Your task to perform on an android device: change your default location settings in chrome Image 0: 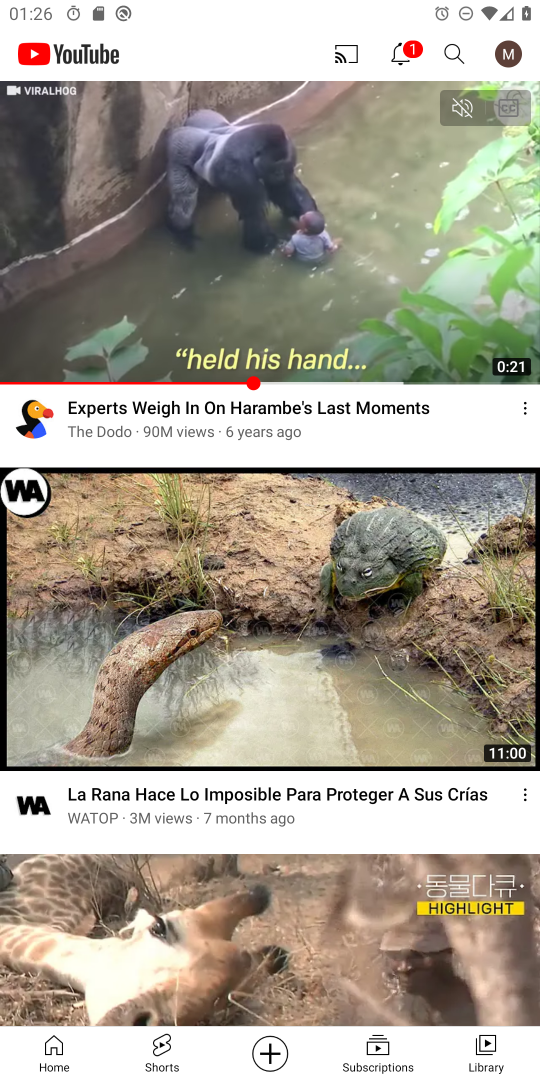
Step 0: press home button
Your task to perform on an android device: change your default location settings in chrome Image 1: 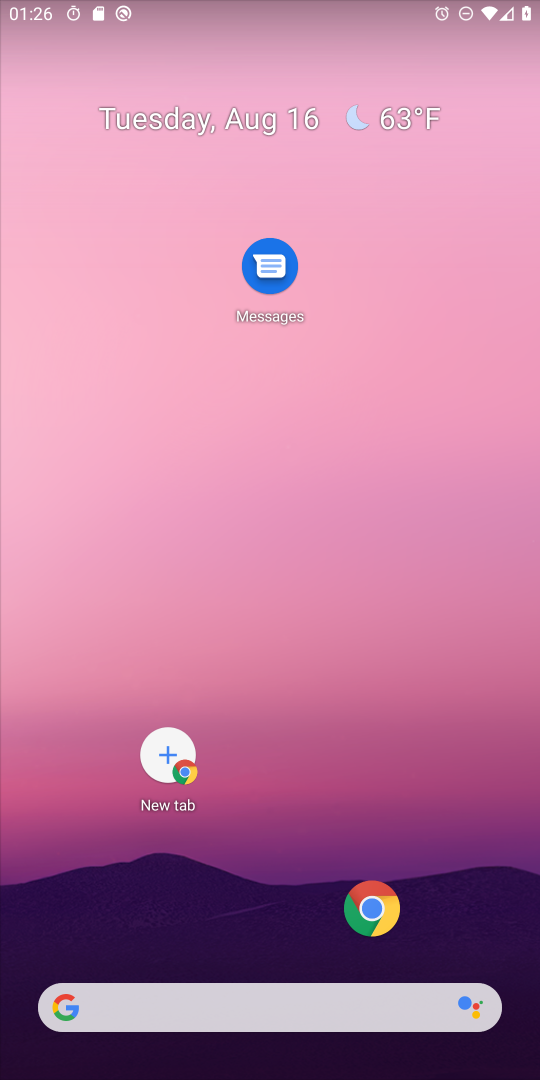
Step 1: click (352, 915)
Your task to perform on an android device: change your default location settings in chrome Image 2: 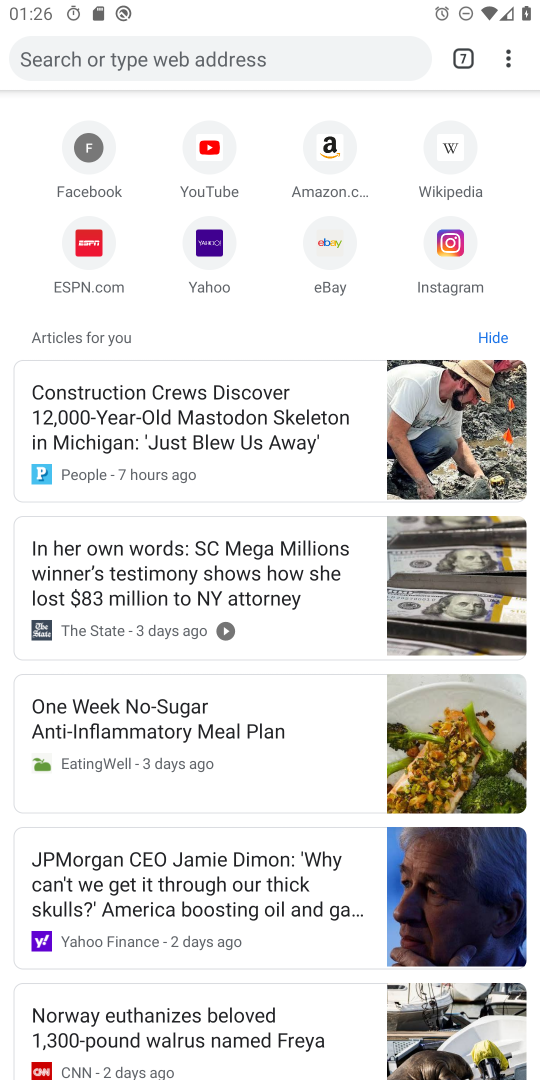
Step 2: click (495, 57)
Your task to perform on an android device: change your default location settings in chrome Image 3: 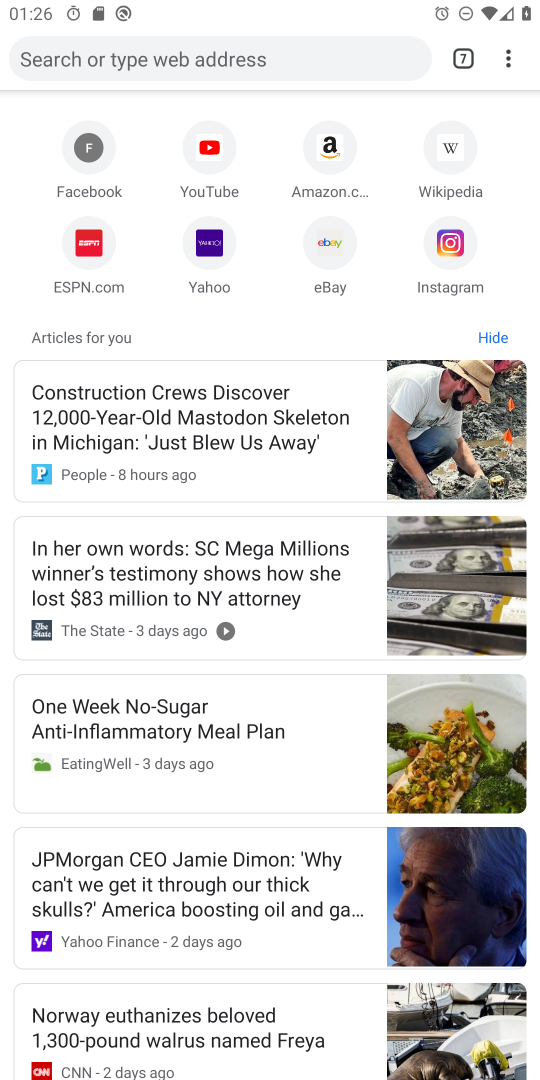
Step 3: click (493, 52)
Your task to perform on an android device: change your default location settings in chrome Image 4: 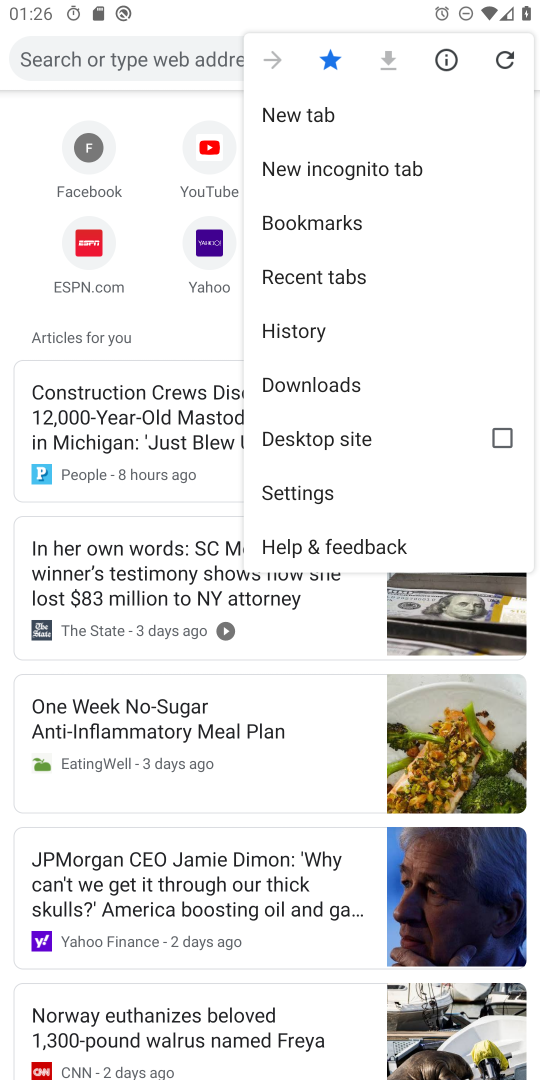
Step 4: click (290, 493)
Your task to perform on an android device: change your default location settings in chrome Image 5: 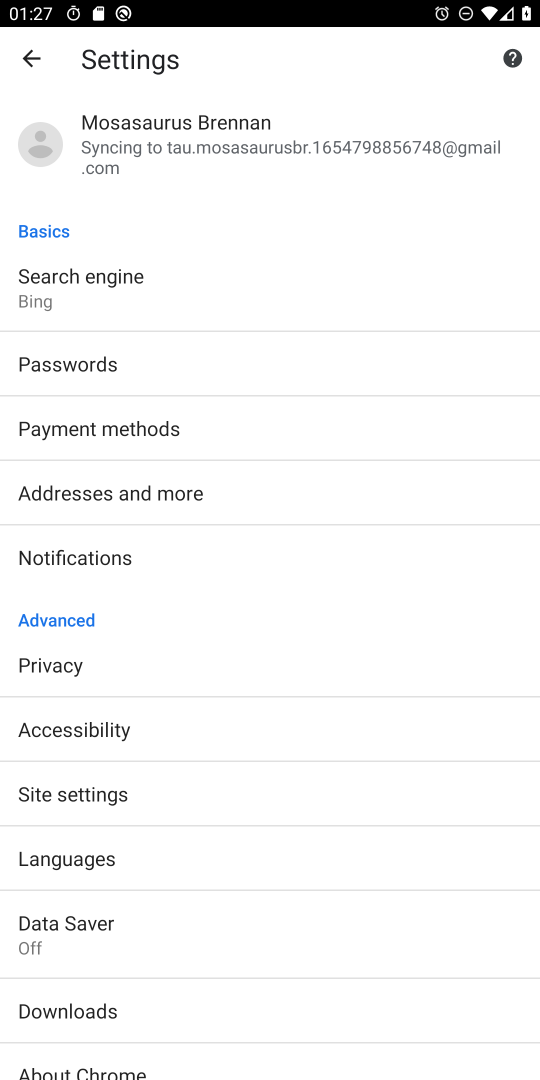
Step 5: click (39, 861)
Your task to perform on an android device: change your default location settings in chrome Image 6: 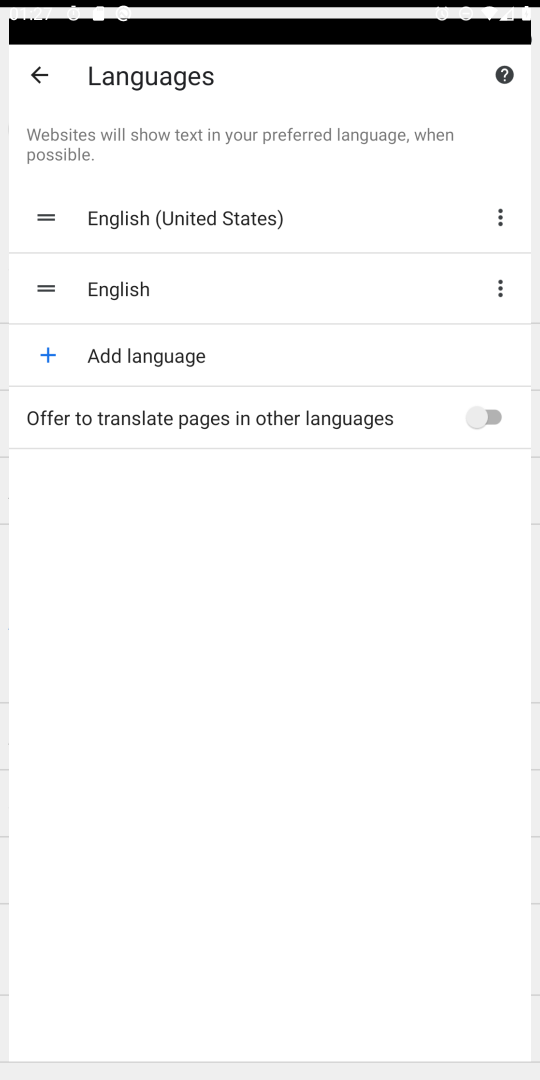
Step 6: click (39, 861)
Your task to perform on an android device: change your default location settings in chrome Image 7: 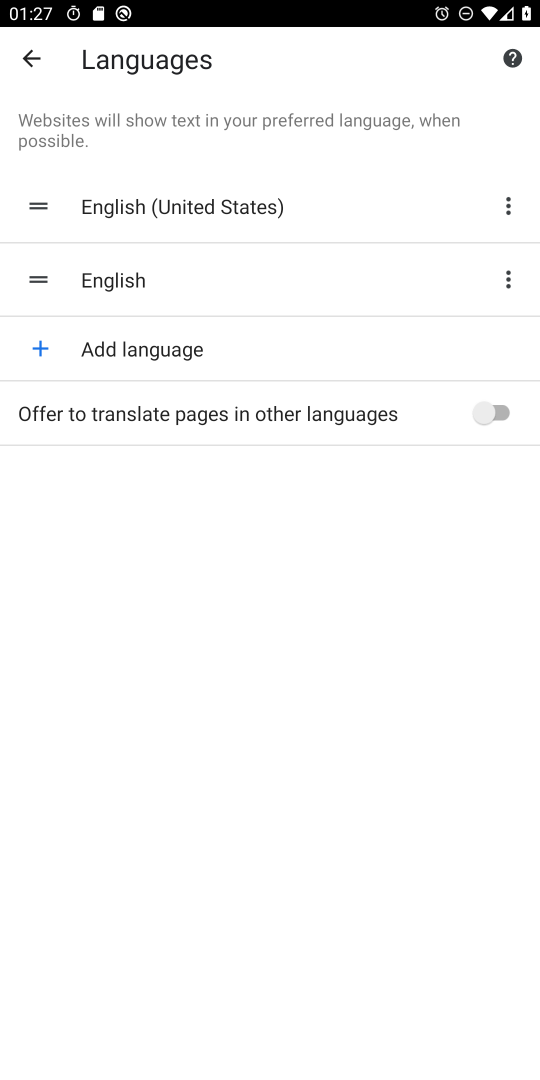
Step 7: click (29, 58)
Your task to perform on an android device: change your default location settings in chrome Image 8: 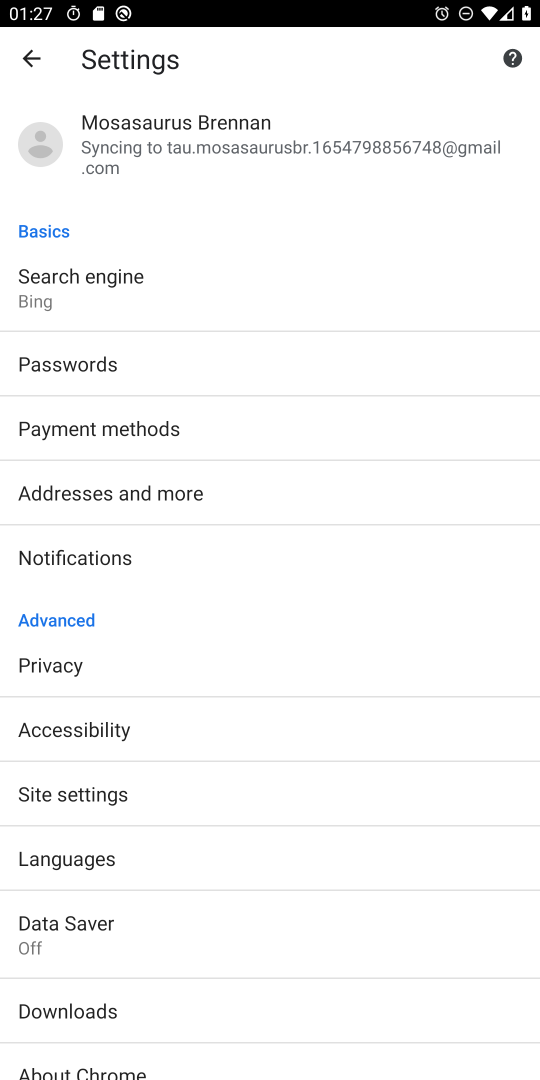
Step 8: click (62, 778)
Your task to perform on an android device: change your default location settings in chrome Image 9: 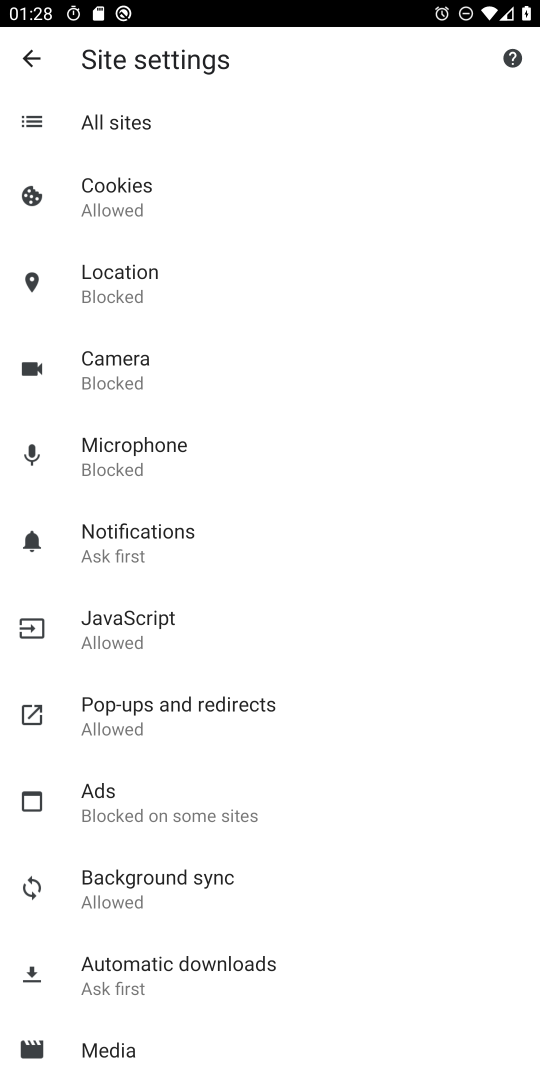
Step 9: click (219, 241)
Your task to perform on an android device: change your default location settings in chrome Image 10: 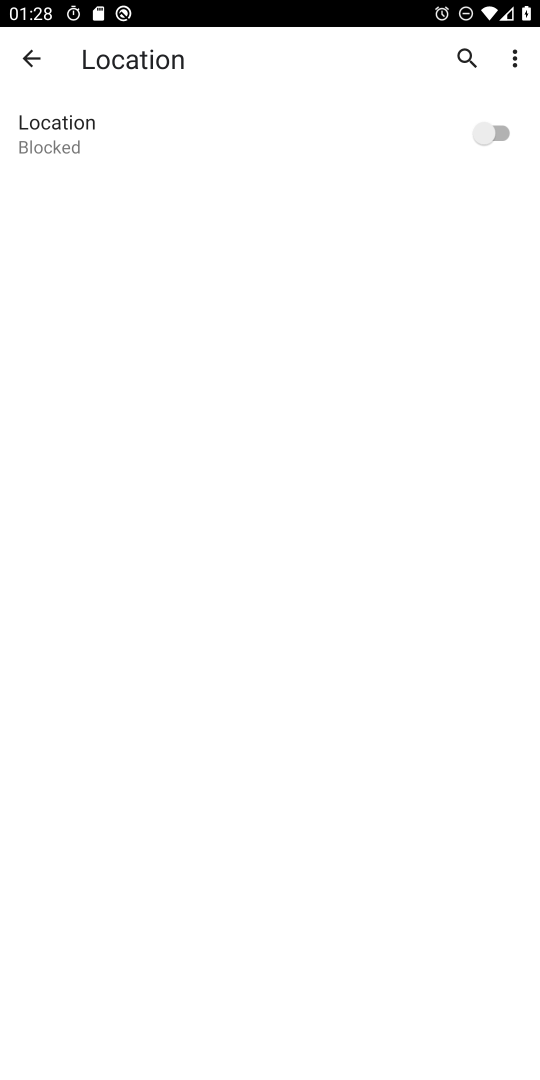
Step 10: click (503, 130)
Your task to perform on an android device: change your default location settings in chrome Image 11: 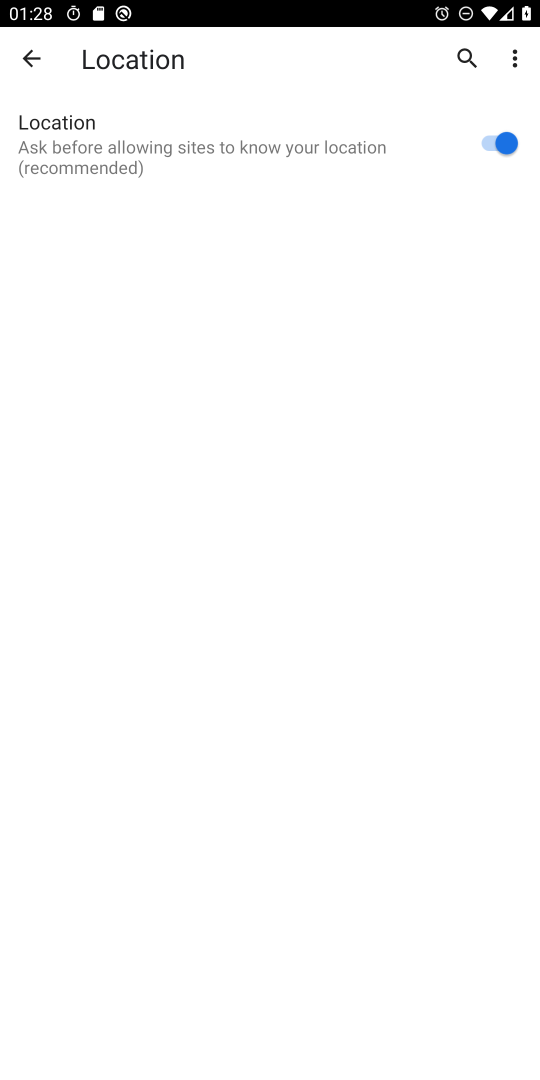
Step 11: task complete